Your task to perform on an android device: Go to Yahoo.com Image 0: 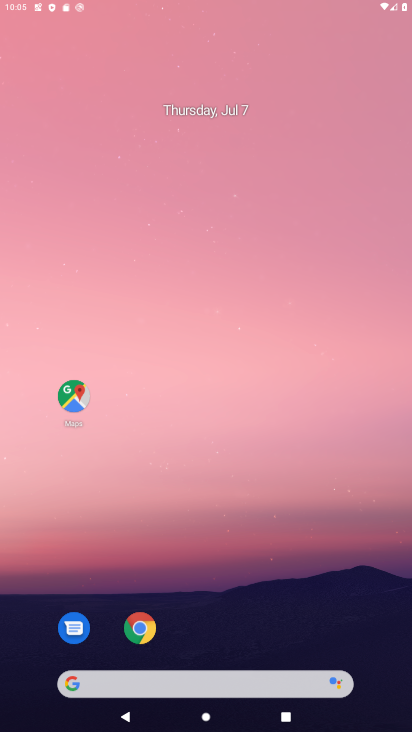
Step 0: press home button
Your task to perform on an android device: Go to Yahoo.com Image 1: 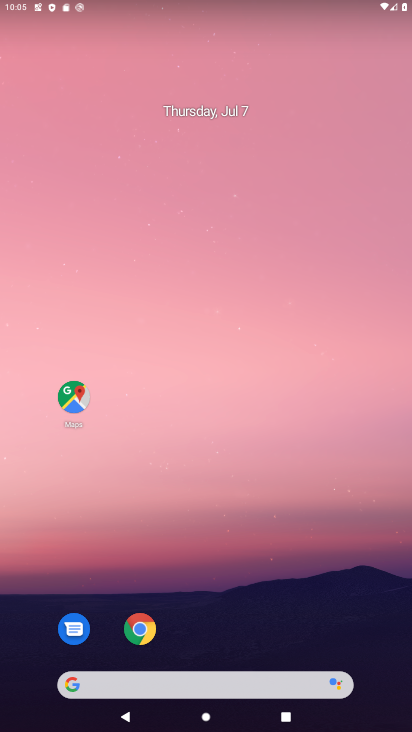
Step 1: click (79, 693)
Your task to perform on an android device: Go to Yahoo.com Image 2: 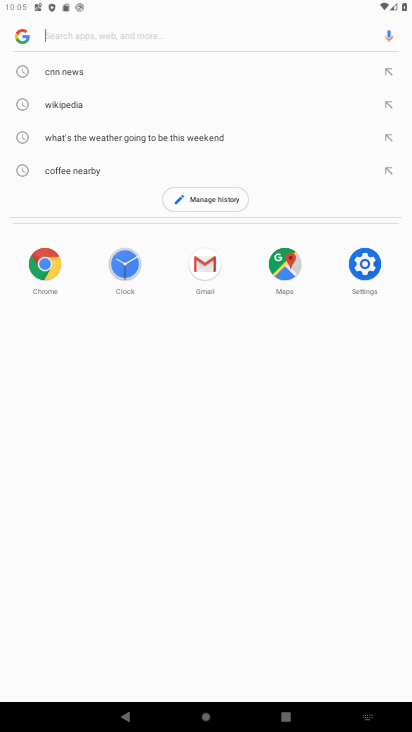
Step 2: type "yahoo.com"
Your task to perform on an android device: Go to Yahoo.com Image 3: 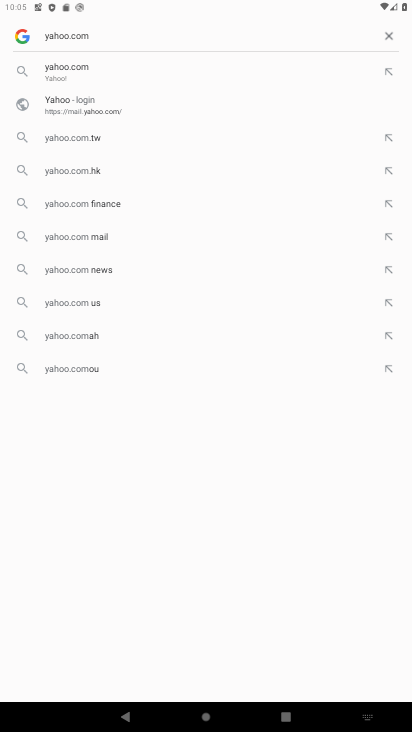
Step 3: click (74, 65)
Your task to perform on an android device: Go to Yahoo.com Image 4: 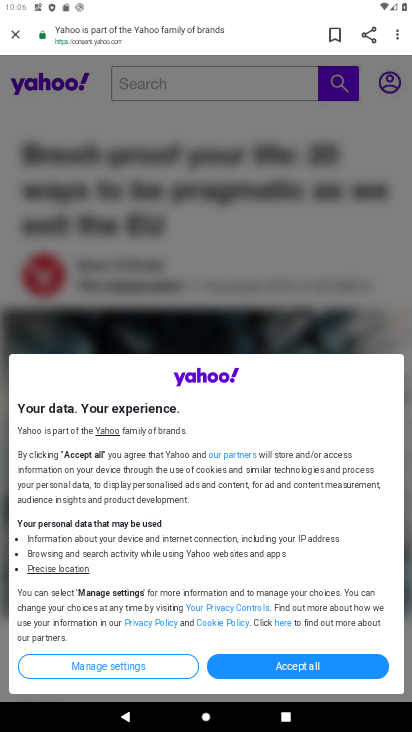
Step 4: click (290, 674)
Your task to perform on an android device: Go to Yahoo.com Image 5: 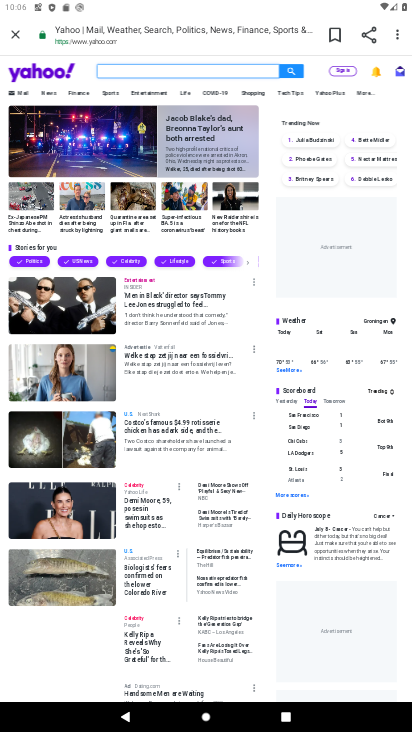
Step 5: task complete